Your task to perform on an android device: Open Chrome and go to the settings page Image 0: 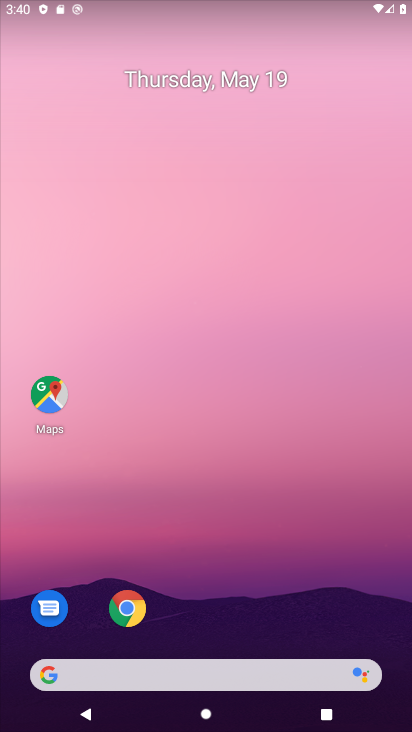
Step 0: click (127, 605)
Your task to perform on an android device: Open Chrome and go to the settings page Image 1: 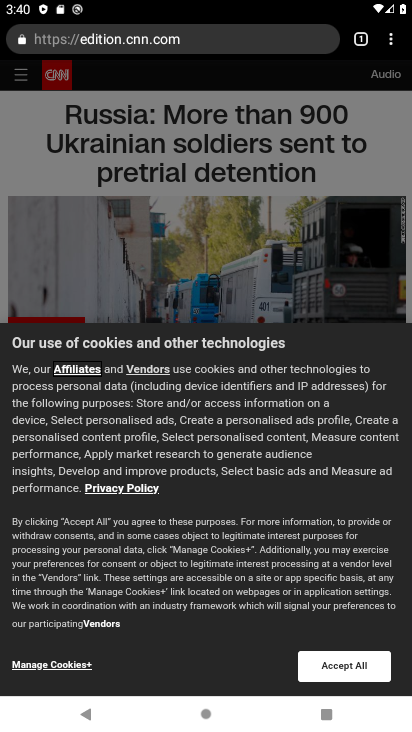
Step 1: click (392, 46)
Your task to perform on an android device: Open Chrome and go to the settings page Image 2: 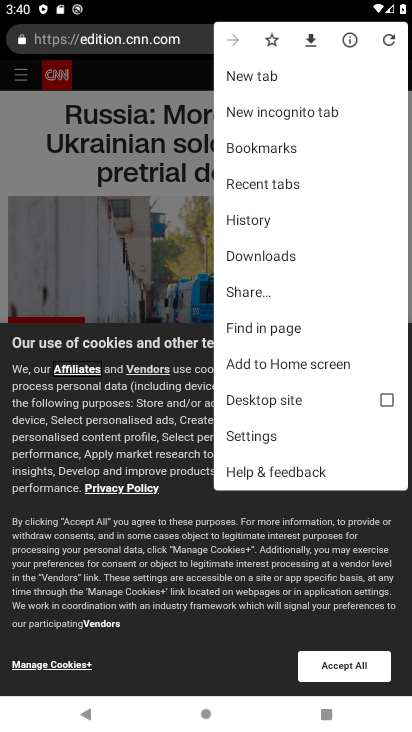
Step 2: click (259, 432)
Your task to perform on an android device: Open Chrome and go to the settings page Image 3: 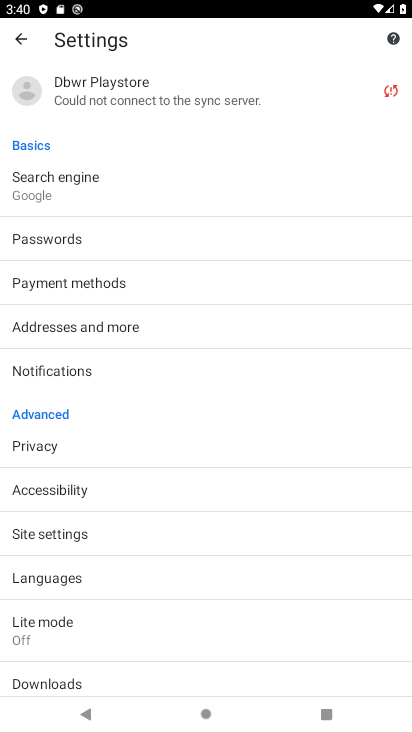
Step 3: task complete